Your task to perform on an android device: Show me popular games on the Play Store Image 0: 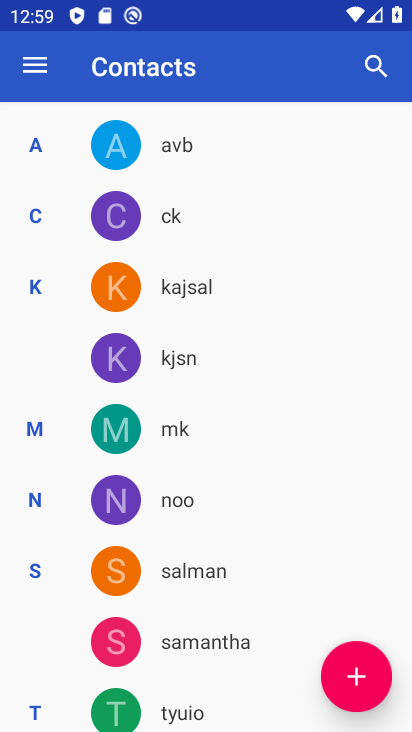
Step 0: press home button
Your task to perform on an android device: Show me popular games on the Play Store Image 1: 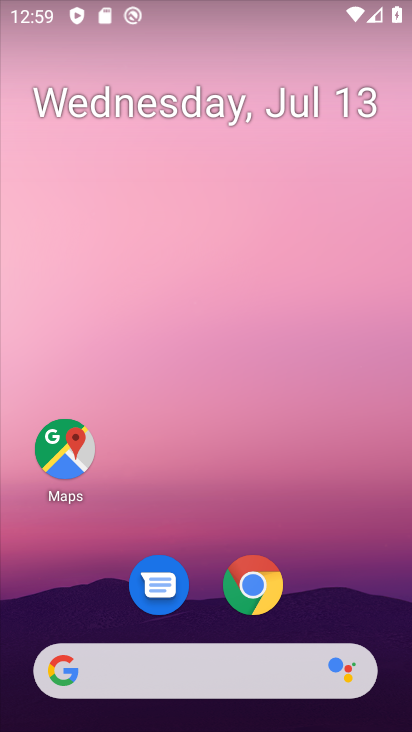
Step 1: drag from (233, 496) to (268, 17)
Your task to perform on an android device: Show me popular games on the Play Store Image 2: 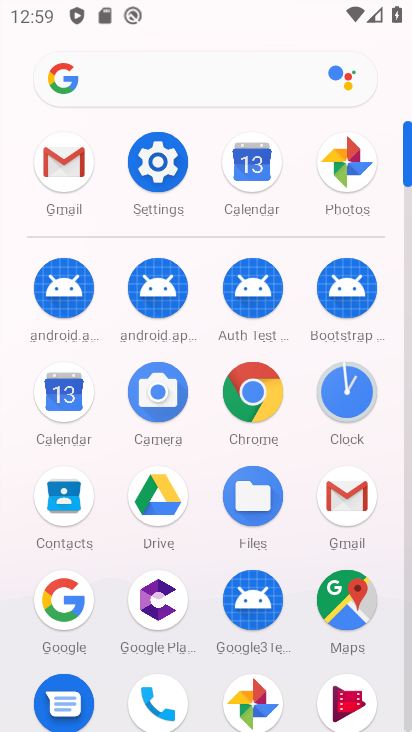
Step 2: drag from (193, 467) to (214, 154)
Your task to perform on an android device: Show me popular games on the Play Store Image 3: 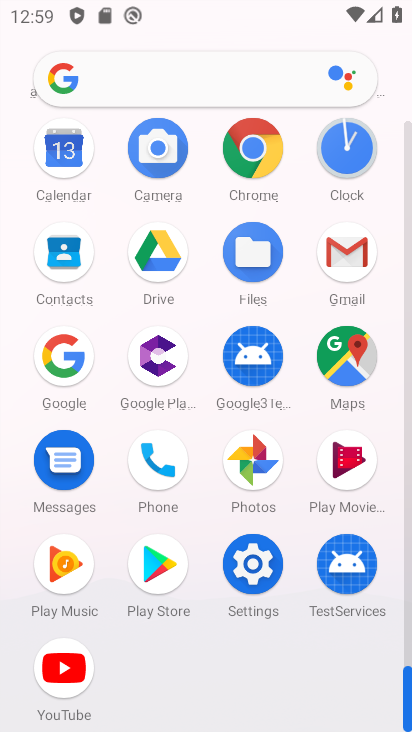
Step 3: click (163, 540)
Your task to perform on an android device: Show me popular games on the Play Store Image 4: 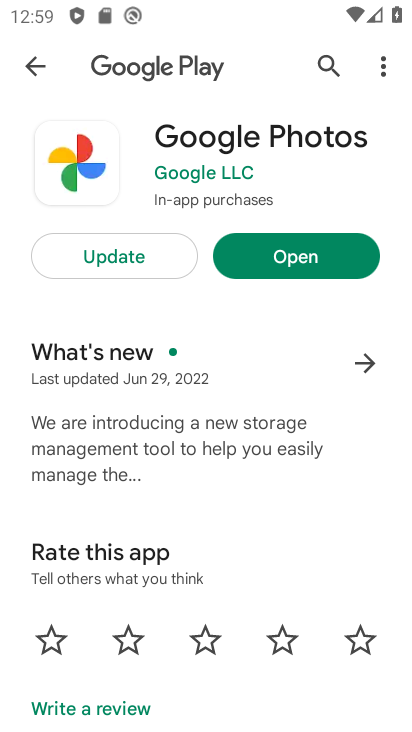
Step 4: click (42, 72)
Your task to perform on an android device: Show me popular games on the Play Store Image 5: 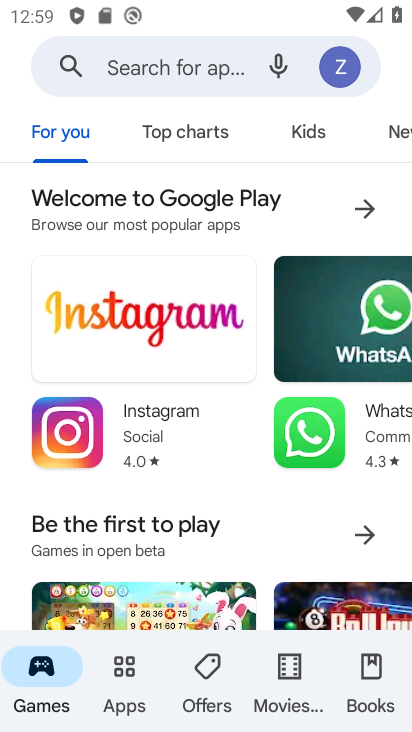
Step 5: drag from (243, 523) to (323, 122)
Your task to perform on an android device: Show me popular games on the Play Store Image 6: 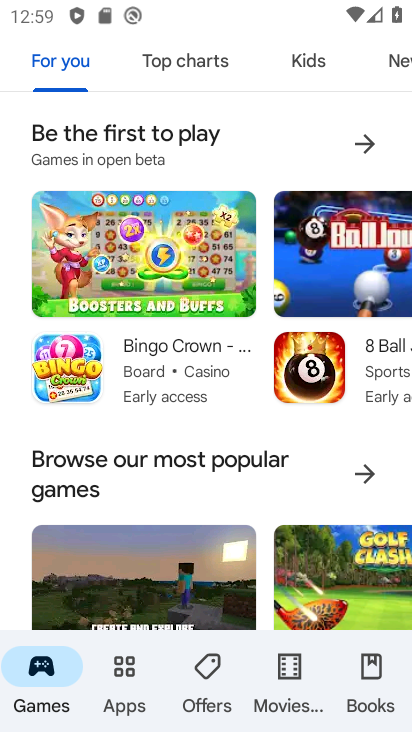
Step 6: click (361, 469)
Your task to perform on an android device: Show me popular games on the Play Store Image 7: 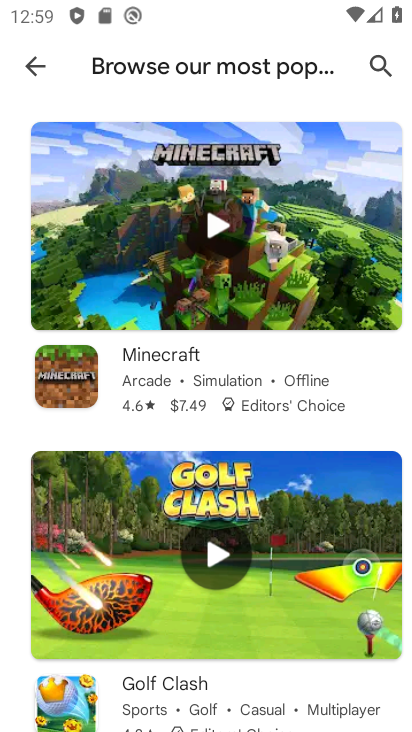
Step 7: task complete